Your task to perform on an android device: turn notification dots off Image 0: 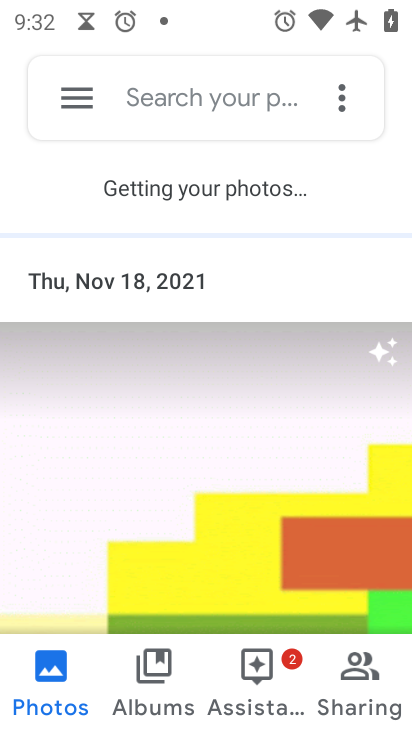
Step 0: press back button
Your task to perform on an android device: turn notification dots off Image 1: 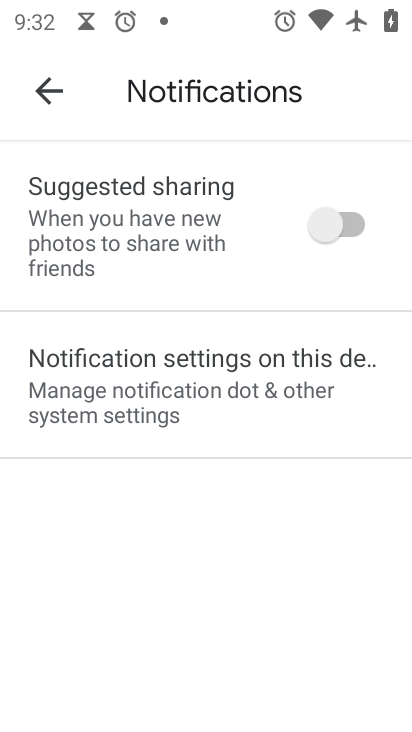
Step 1: press back button
Your task to perform on an android device: turn notification dots off Image 2: 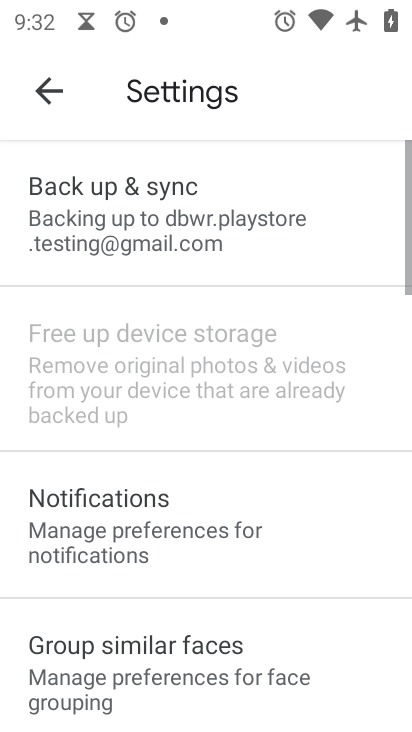
Step 2: press home button
Your task to perform on an android device: turn notification dots off Image 3: 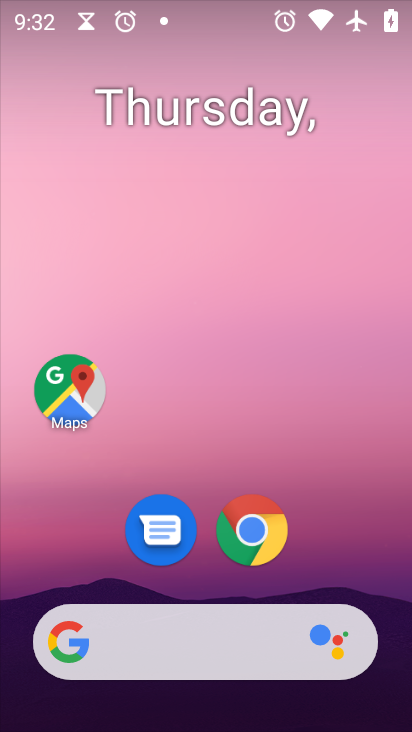
Step 3: drag from (335, 494) to (261, 56)
Your task to perform on an android device: turn notification dots off Image 4: 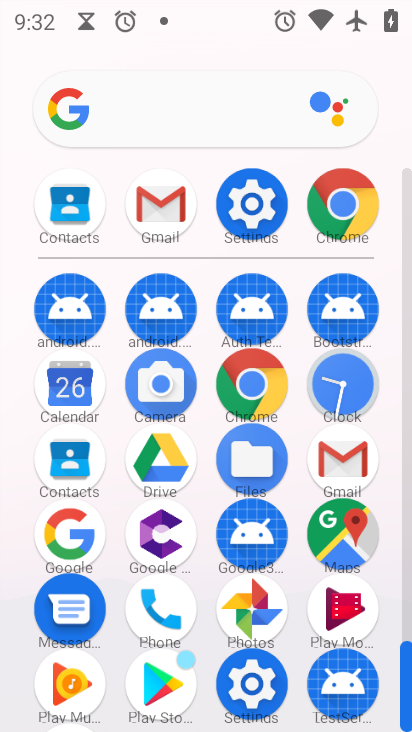
Step 4: drag from (9, 544) to (5, 271)
Your task to perform on an android device: turn notification dots off Image 5: 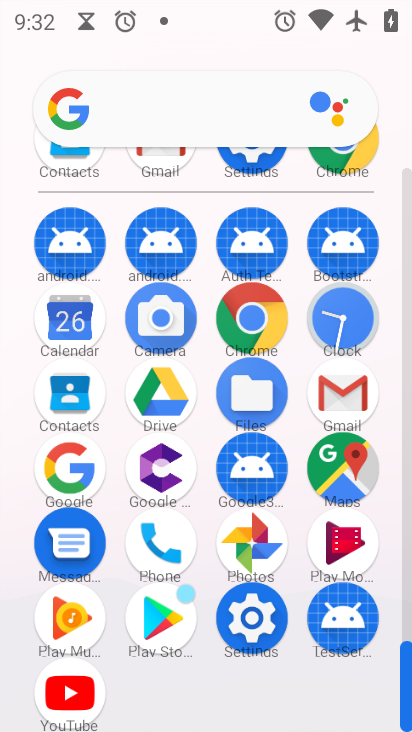
Step 5: click (247, 621)
Your task to perform on an android device: turn notification dots off Image 6: 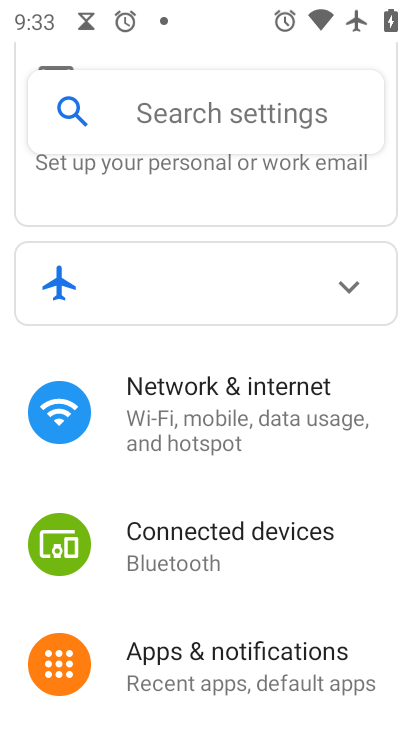
Step 6: click (267, 656)
Your task to perform on an android device: turn notification dots off Image 7: 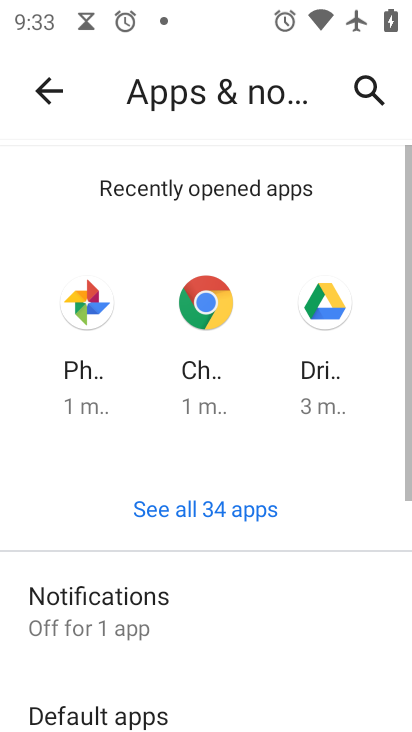
Step 7: drag from (303, 628) to (302, 206)
Your task to perform on an android device: turn notification dots off Image 8: 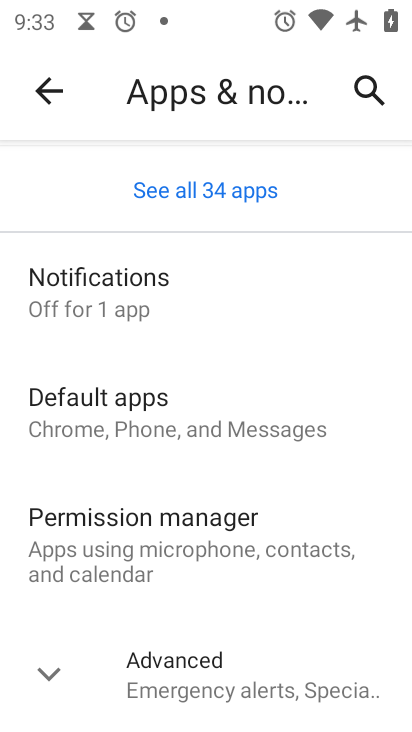
Step 8: click (77, 655)
Your task to perform on an android device: turn notification dots off Image 9: 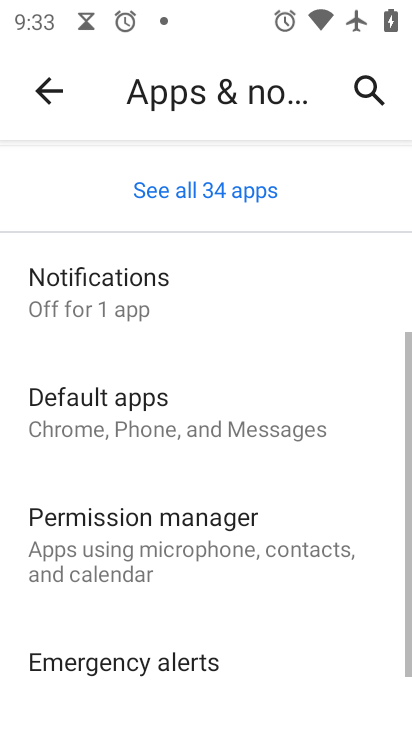
Step 9: drag from (264, 647) to (289, 230)
Your task to perform on an android device: turn notification dots off Image 10: 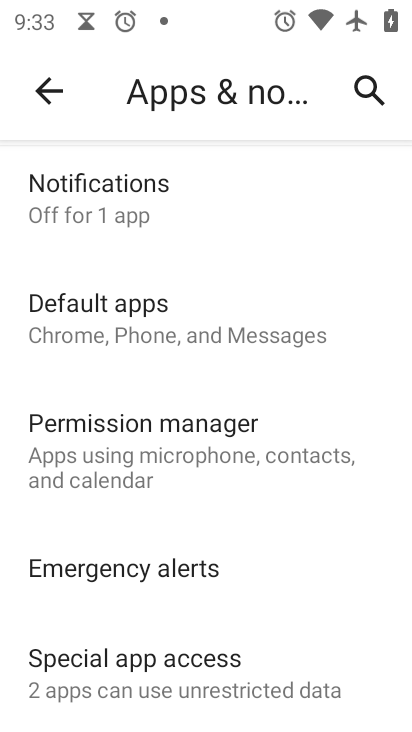
Step 10: drag from (293, 612) to (297, 263)
Your task to perform on an android device: turn notification dots off Image 11: 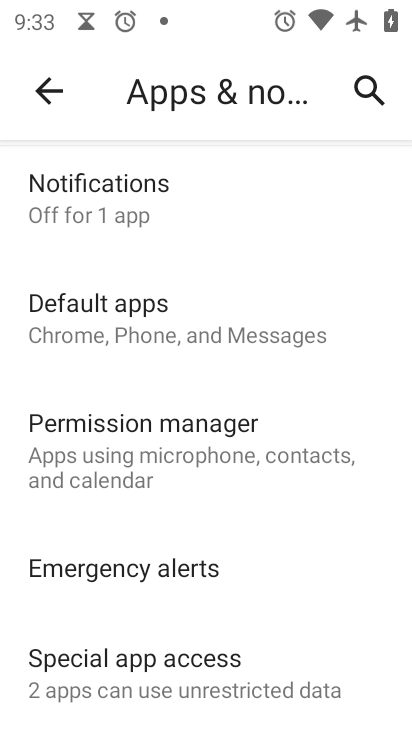
Step 11: click (185, 179)
Your task to perform on an android device: turn notification dots off Image 12: 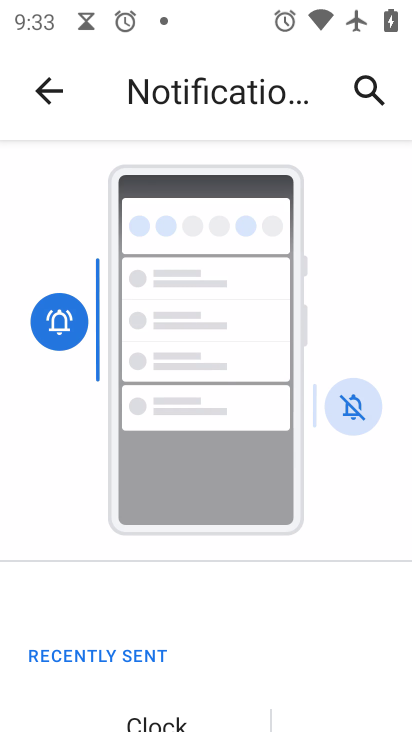
Step 12: drag from (216, 444) to (227, 152)
Your task to perform on an android device: turn notification dots off Image 13: 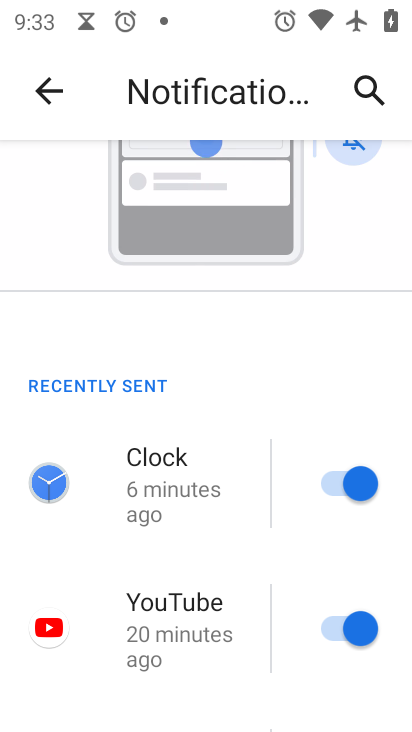
Step 13: drag from (207, 632) to (228, 196)
Your task to perform on an android device: turn notification dots off Image 14: 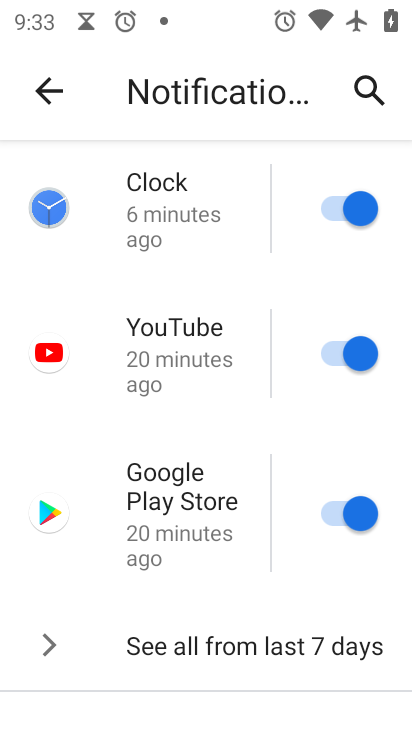
Step 14: drag from (217, 599) to (229, 179)
Your task to perform on an android device: turn notification dots off Image 15: 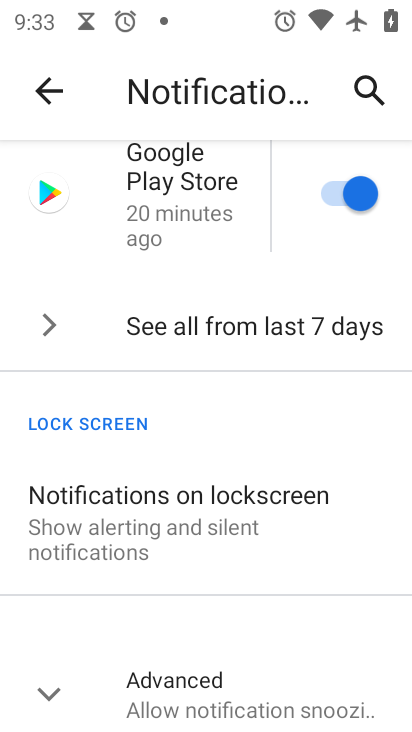
Step 15: click (175, 674)
Your task to perform on an android device: turn notification dots off Image 16: 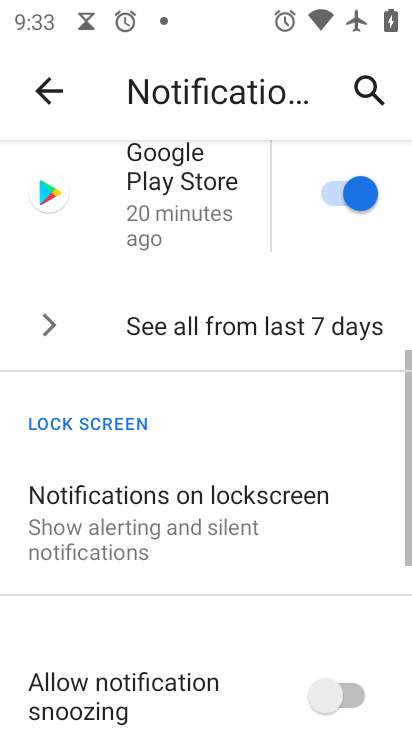
Step 16: drag from (259, 694) to (219, 306)
Your task to perform on an android device: turn notification dots off Image 17: 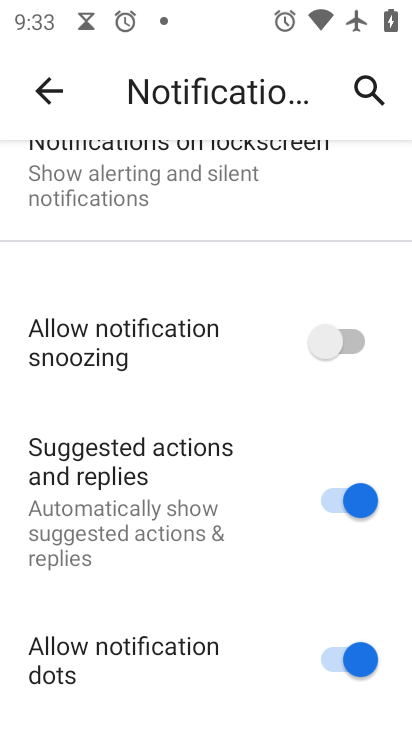
Step 17: drag from (215, 654) to (252, 283)
Your task to perform on an android device: turn notification dots off Image 18: 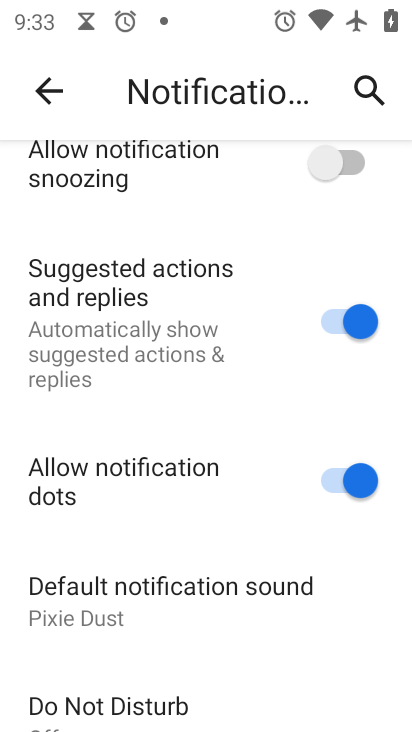
Step 18: click (346, 489)
Your task to perform on an android device: turn notification dots off Image 19: 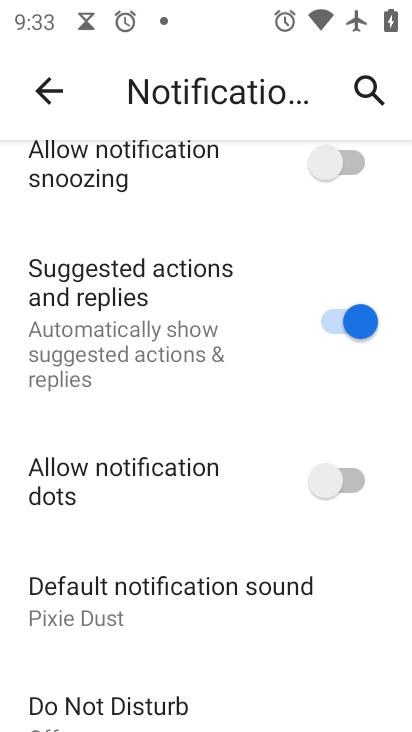
Step 19: task complete